Your task to perform on an android device: create a new album in the google photos Image 0: 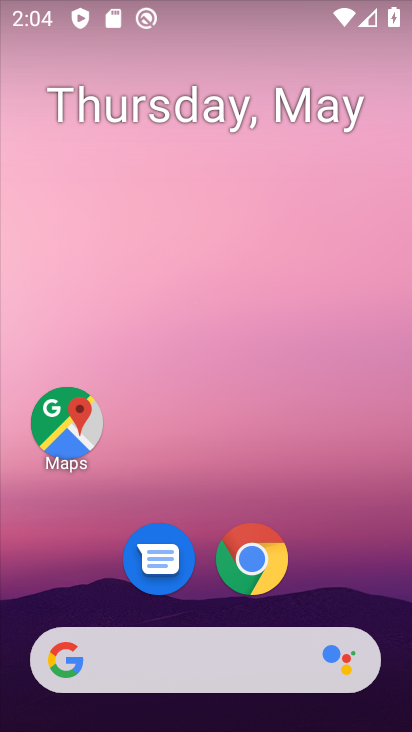
Step 0: drag from (217, 617) to (224, 215)
Your task to perform on an android device: create a new album in the google photos Image 1: 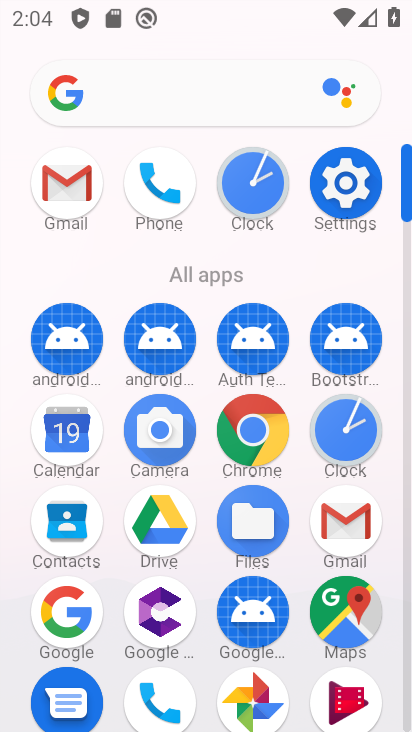
Step 1: click (253, 688)
Your task to perform on an android device: create a new album in the google photos Image 2: 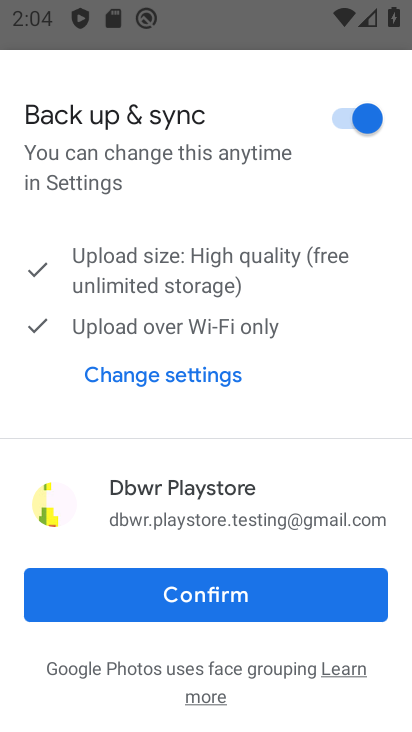
Step 2: click (231, 588)
Your task to perform on an android device: create a new album in the google photos Image 3: 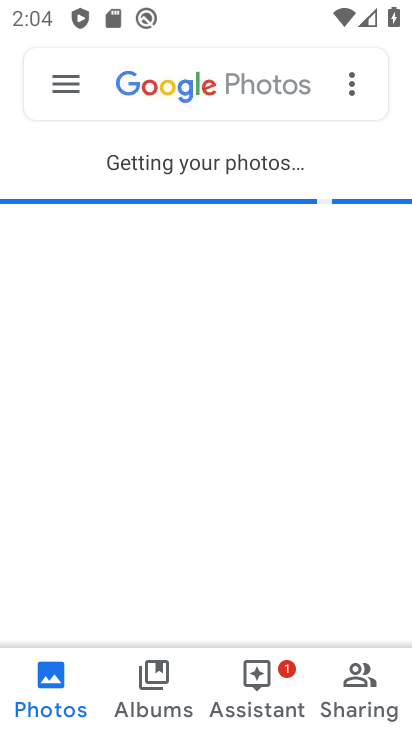
Step 3: click (351, 79)
Your task to perform on an android device: create a new album in the google photos Image 4: 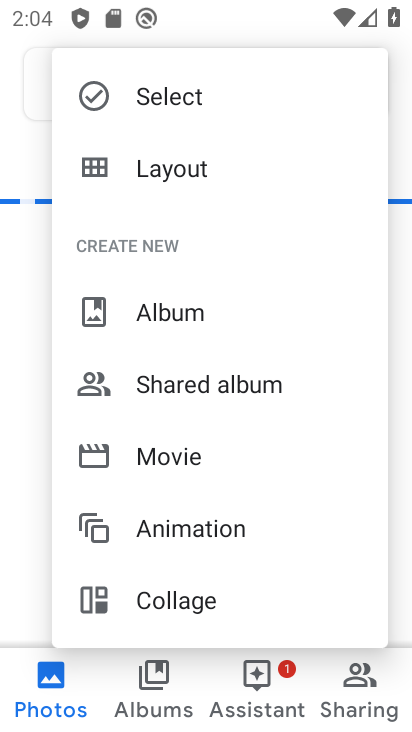
Step 4: click (184, 320)
Your task to perform on an android device: create a new album in the google photos Image 5: 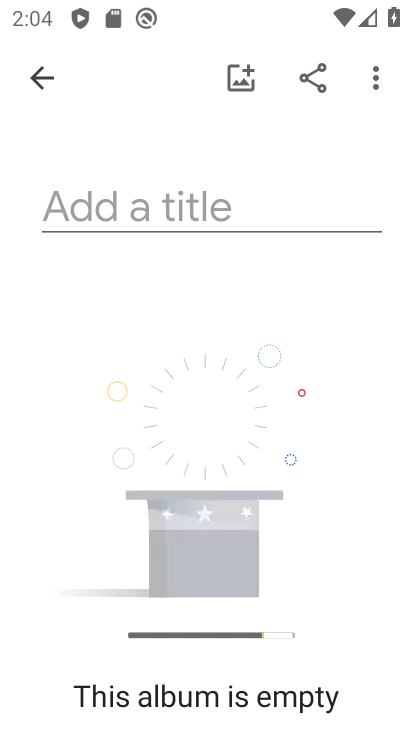
Step 5: click (232, 199)
Your task to perform on an android device: create a new album in the google photos Image 6: 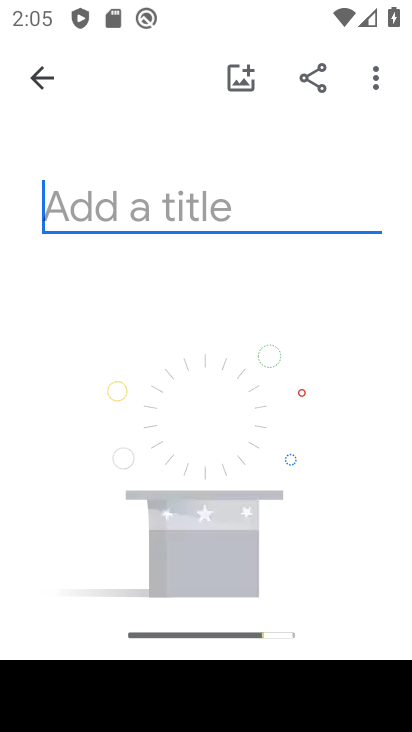
Step 6: type "vmhgk"
Your task to perform on an android device: create a new album in the google photos Image 7: 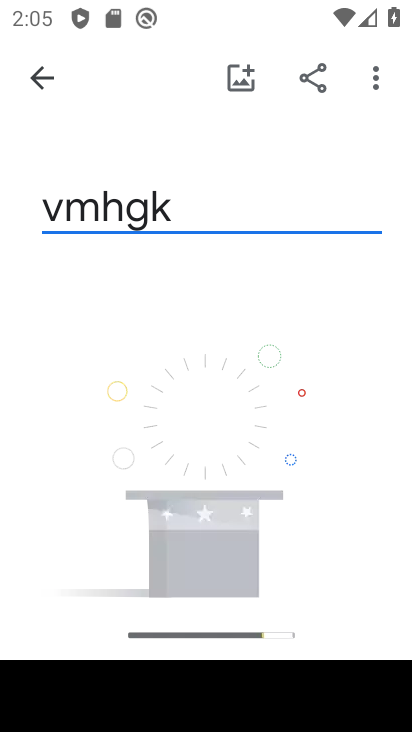
Step 7: drag from (231, 542) to (260, 238)
Your task to perform on an android device: create a new album in the google photos Image 8: 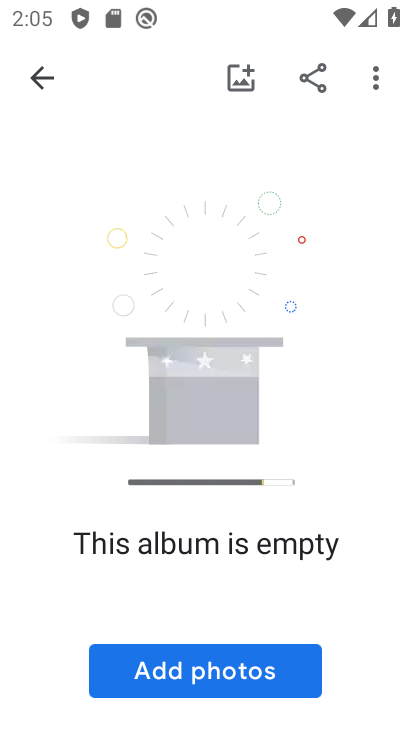
Step 8: click (195, 664)
Your task to perform on an android device: create a new album in the google photos Image 9: 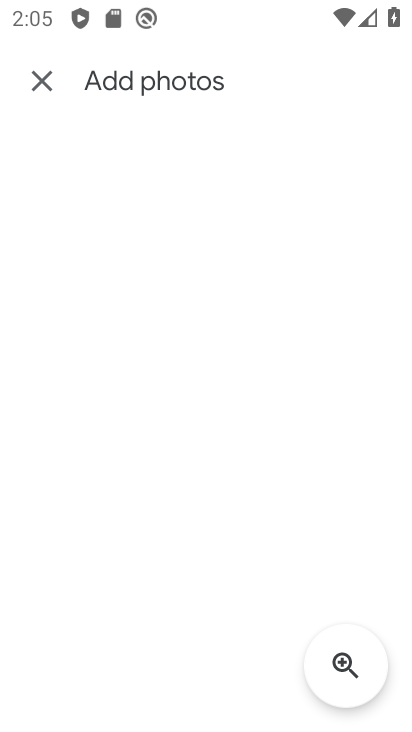
Step 9: drag from (185, 515) to (201, 263)
Your task to perform on an android device: create a new album in the google photos Image 10: 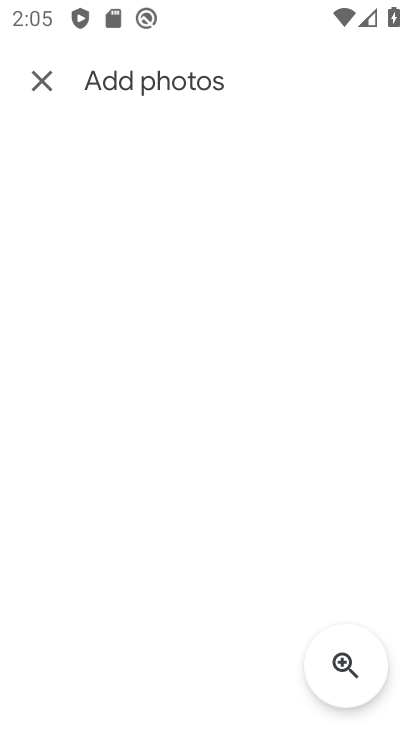
Step 10: click (125, 311)
Your task to perform on an android device: create a new album in the google photos Image 11: 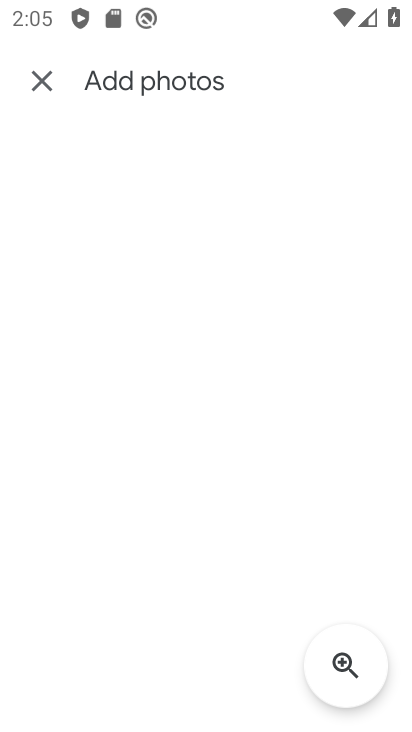
Step 11: click (171, 470)
Your task to perform on an android device: create a new album in the google photos Image 12: 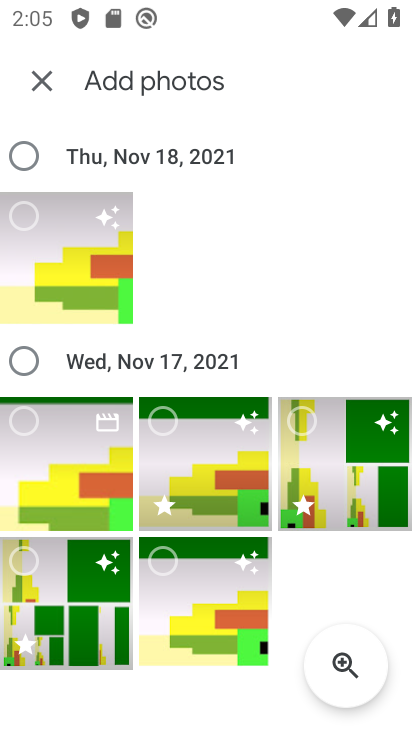
Step 12: click (92, 443)
Your task to perform on an android device: create a new album in the google photos Image 13: 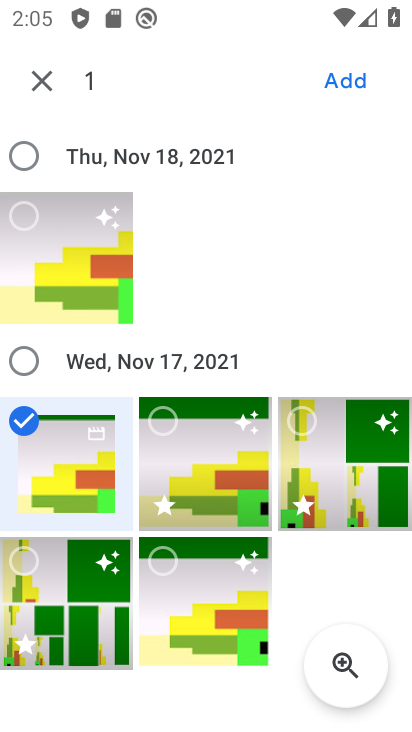
Step 13: click (176, 428)
Your task to perform on an android device: create a new album in the google photos Image 14: 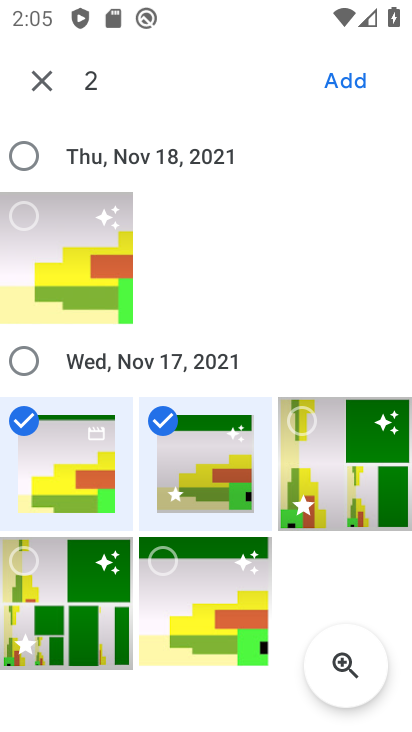
Step 14: click (350, 79)
Your task to perform on an android device: create a new album in the google photos Image 15: 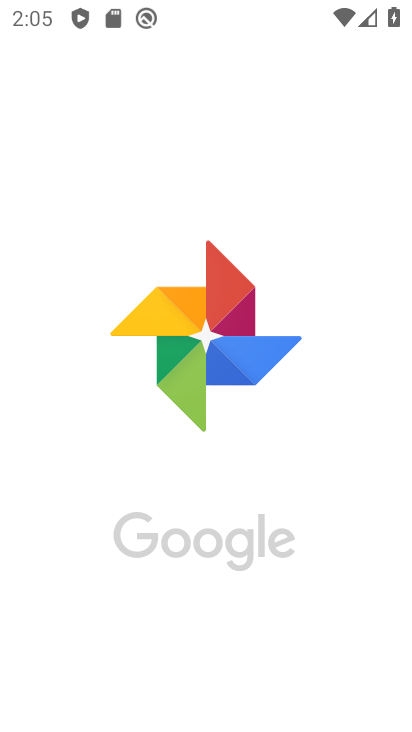
Step 15: task complete